Your task to perform on an android device: turn notification dots off Image 0: 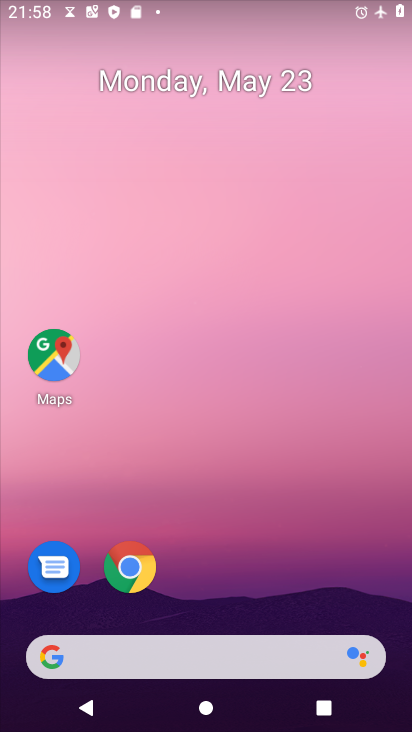
Step 0: drag from (208, 574) to (237, 278)
Your task to perform on an android device: turn notification dots off Image 1: 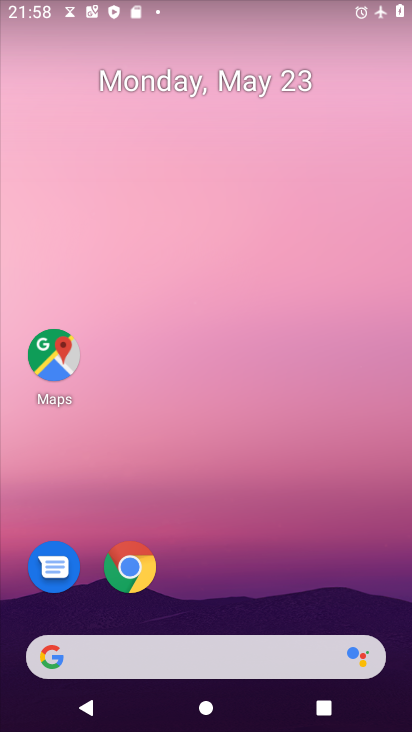
Step 1: drag from (227, 533) to (233, 263)
Your task to perform on an android device: turn notification dots off Image 2: 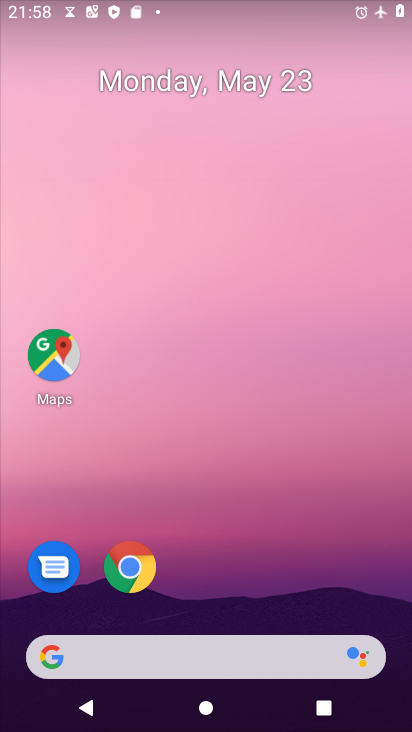
Step 2: drag from (256, 570) to (256, 245)
Your task to perform on an android device: turn notification dots off Image 3: 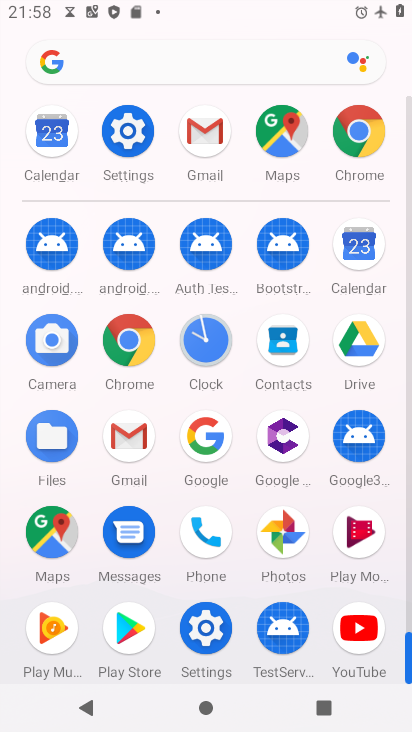
Step 3: click (122, 125)
Your task to perform on an android device: turn notification dots off Image 4: 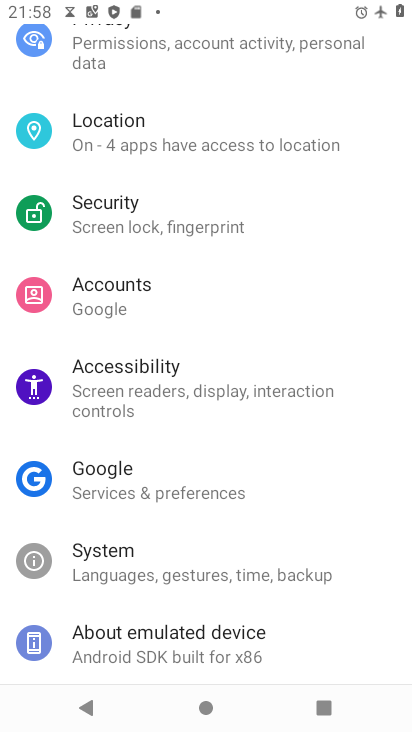
Step 4: drag from (260, 127) to (302, 601)
Your task to perform on an android device: turn notification dots off Image 5: 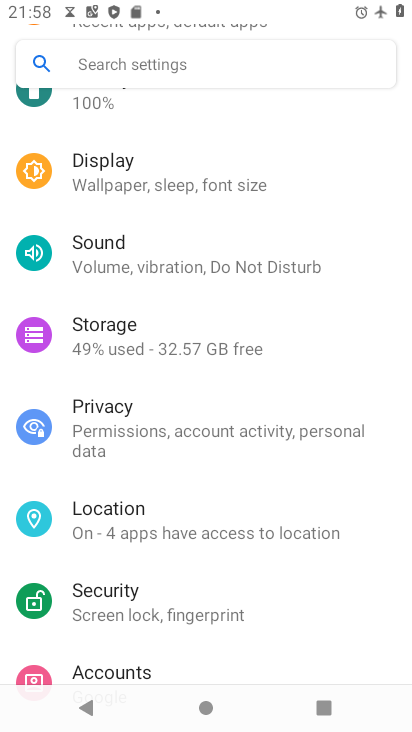
Step 5: click (149, 60)
Your task to perform on an android device: turn notification dots off Image 6: 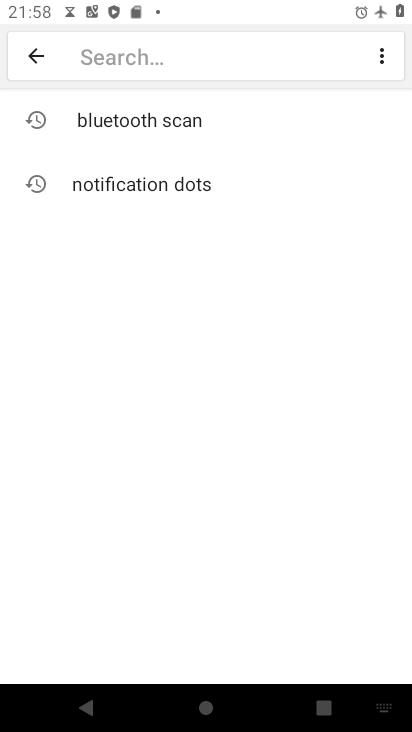
Step 6: type "notification dots"
Your task to perform on an android device: turn notification dots off Image 7: 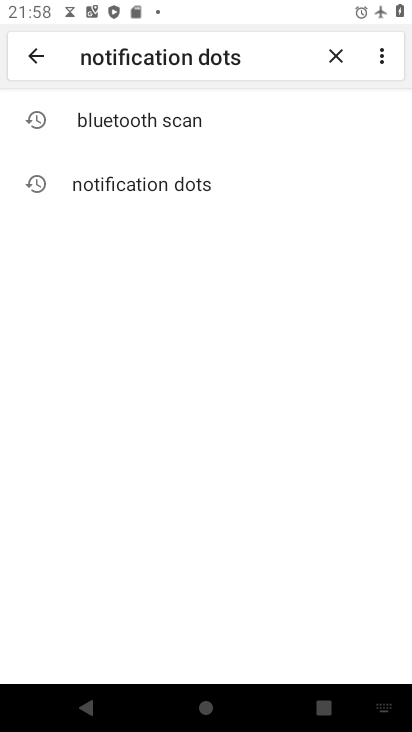
Step 7: click (194, 197)
Your task to perform on an android device: turn notification dots off Image 8: 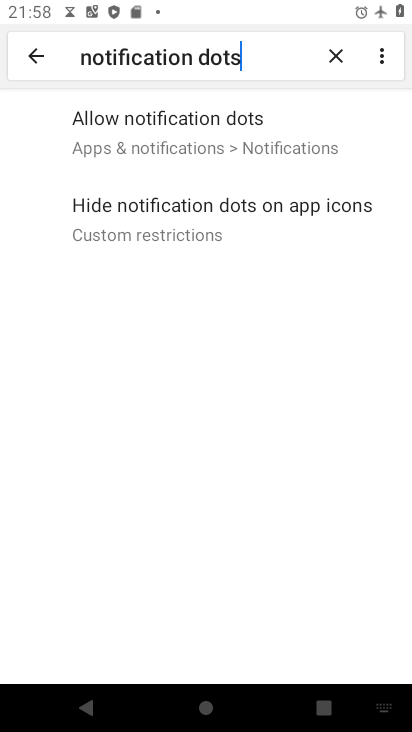
Step 8: click (184, 138)
Your task to perform on an android device: turn notification dots off Image 9: 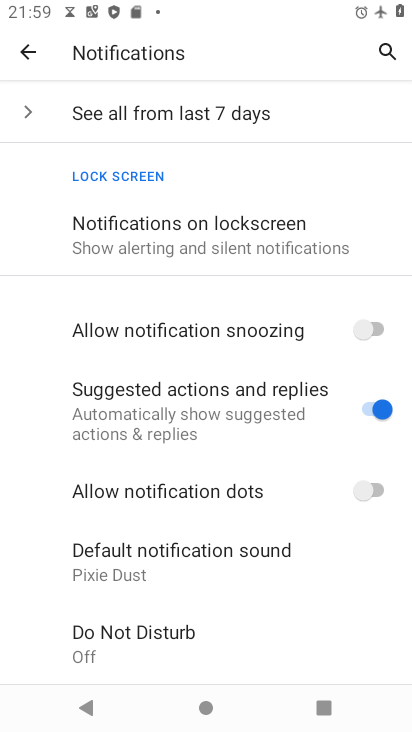
Step 9: task complete